Your task to perform on an android device: What's the weather going to be tomorrow? Image 0: 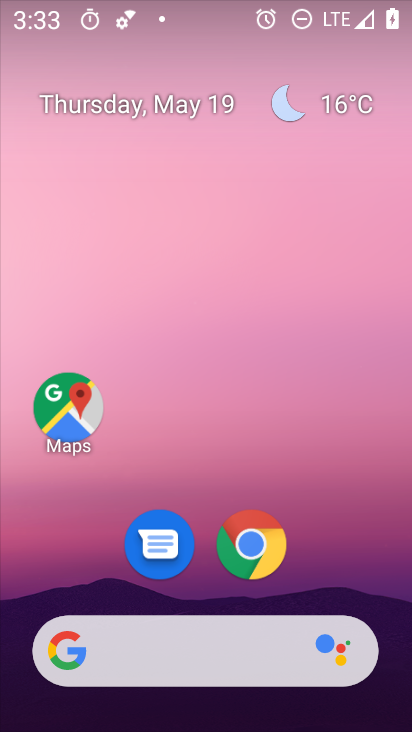
Step 0: drag from (330, 559) to (308, 36)
Your task to perform on an android device: What's the weather going to be tomorrow? Image 1: 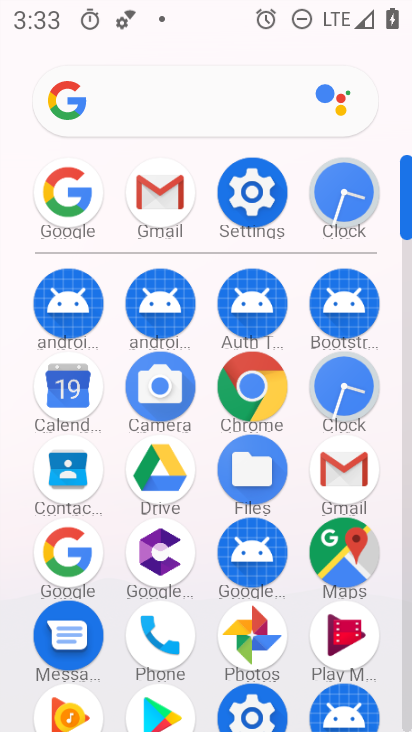
Step 1: click (76, 544)
Your task to perform on an android device: What's the weather going to be tomorrow? Image 2: 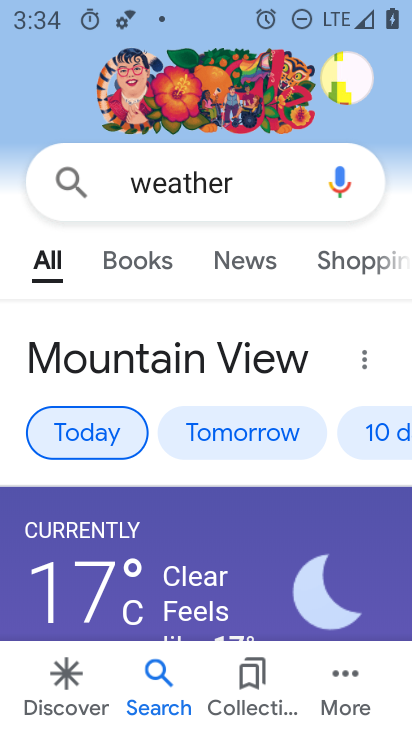
Step 2: click (233, 414)
Your task to perform on an android device: What's the weather going to be tomorrow? Image 3: 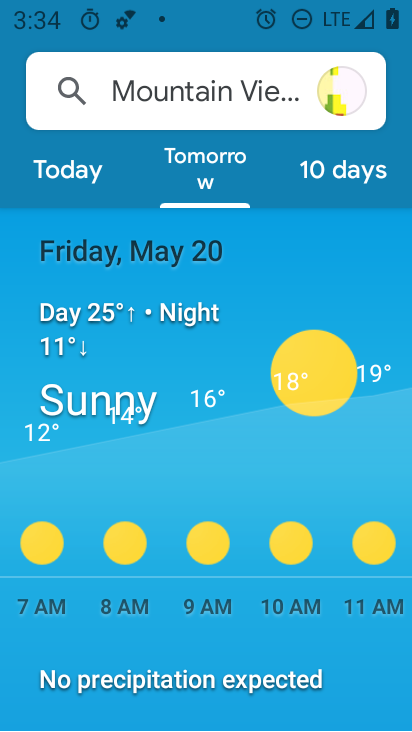
Step 3: task complete